Your task to perform on an android device: check android version Image 0: 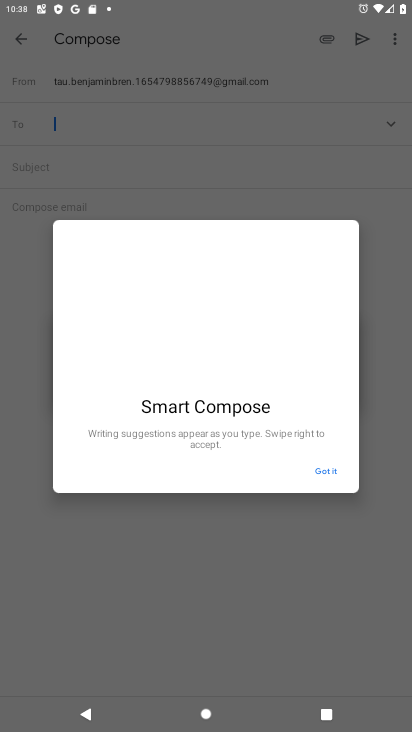
Step 0: press home button
Your task to perform on an android device: check android version Image 1: 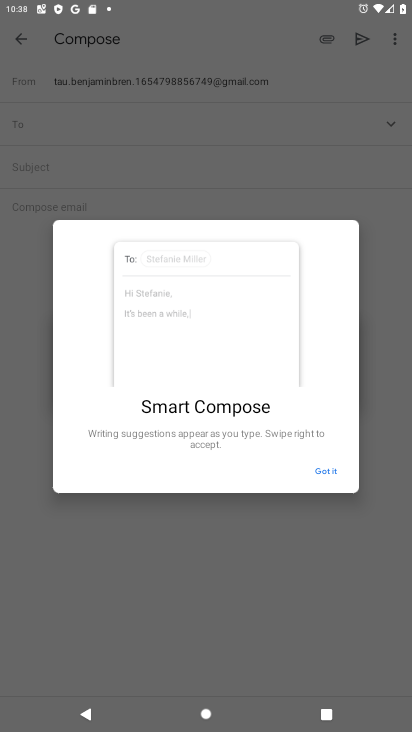
Step 1: drag from (401, 632) to (257, 8)
Your task to perform on an android device: check android version Image 2: 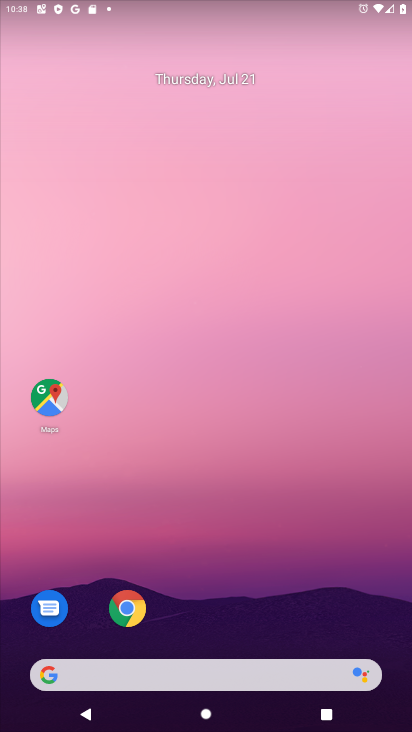
Step 2: drag from (382, 661) to (244, 47)
Your task to perform on an android device: check android version Image 3: 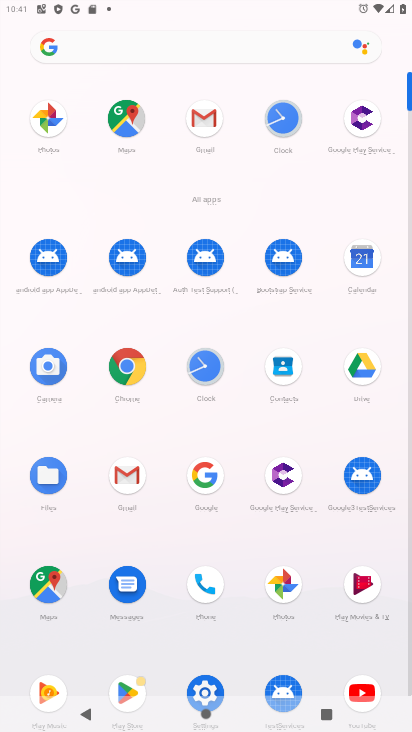
Step 3: click (194, 683)
Your task to perform on an android device: check android version Image 4: 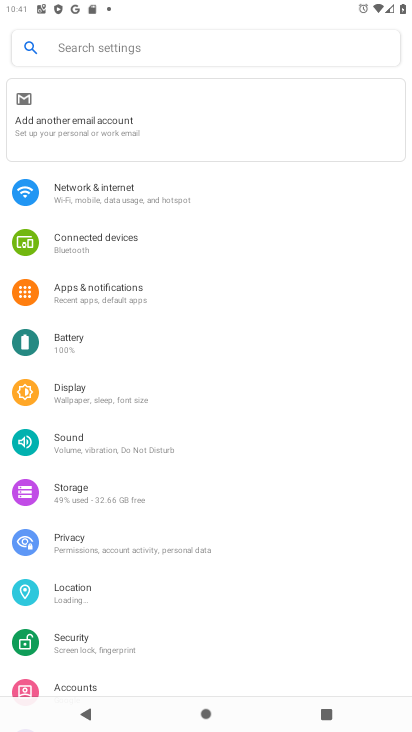
Step 4: drag from (121, 615) to (182, 28)
Your task to perform on an android device: check android version Image 5: 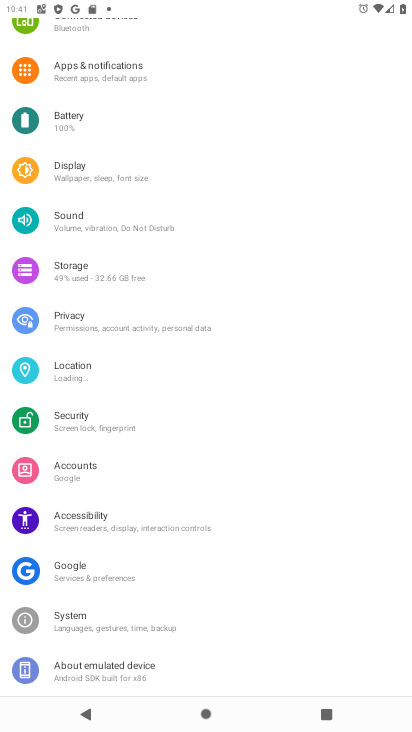
Step 5: click (96, 686)
Your task to perform on an android device: check android version Image 6: 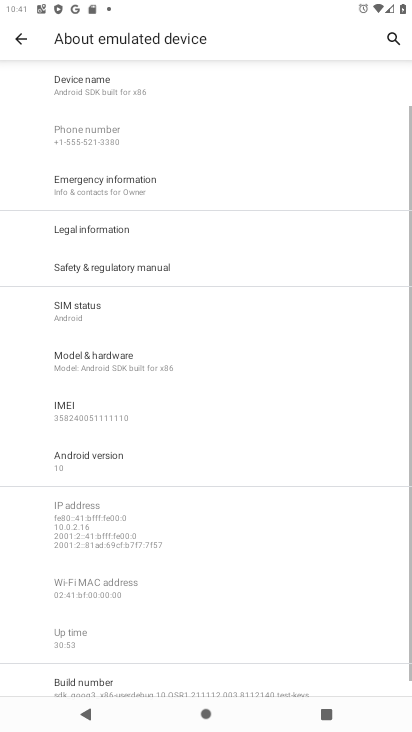
Step 6: click (104, 467)
Your task to perform on an android device: check android version Image 7: 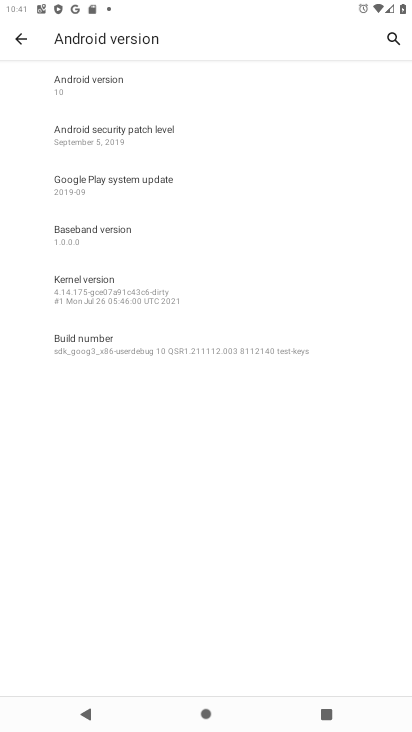
Step 7: task complete